Your task to perform on an android device: Open my contact list Image 0: 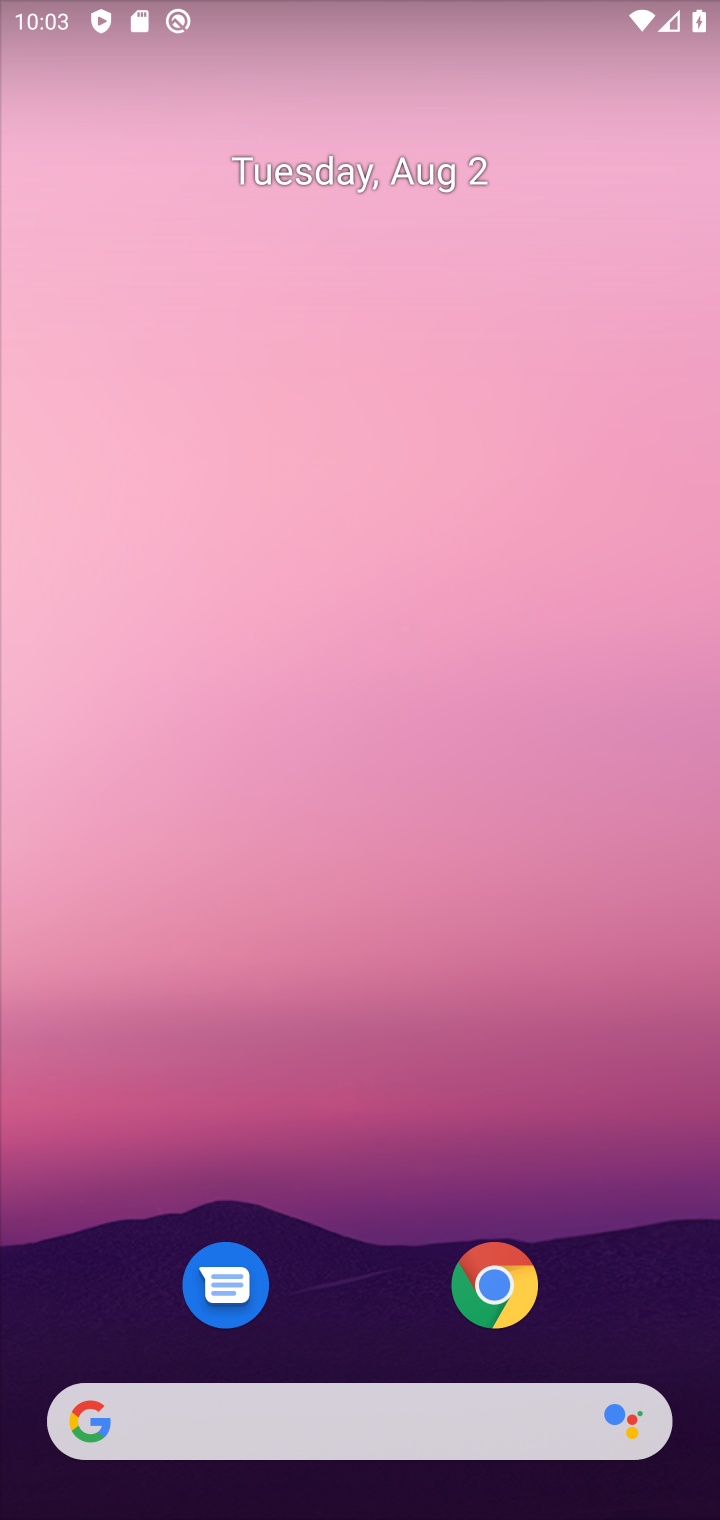
Step 0: drag from (334, 1334) to (396, 863)
Your task to perform on an android device: Open my contact list Image 1: 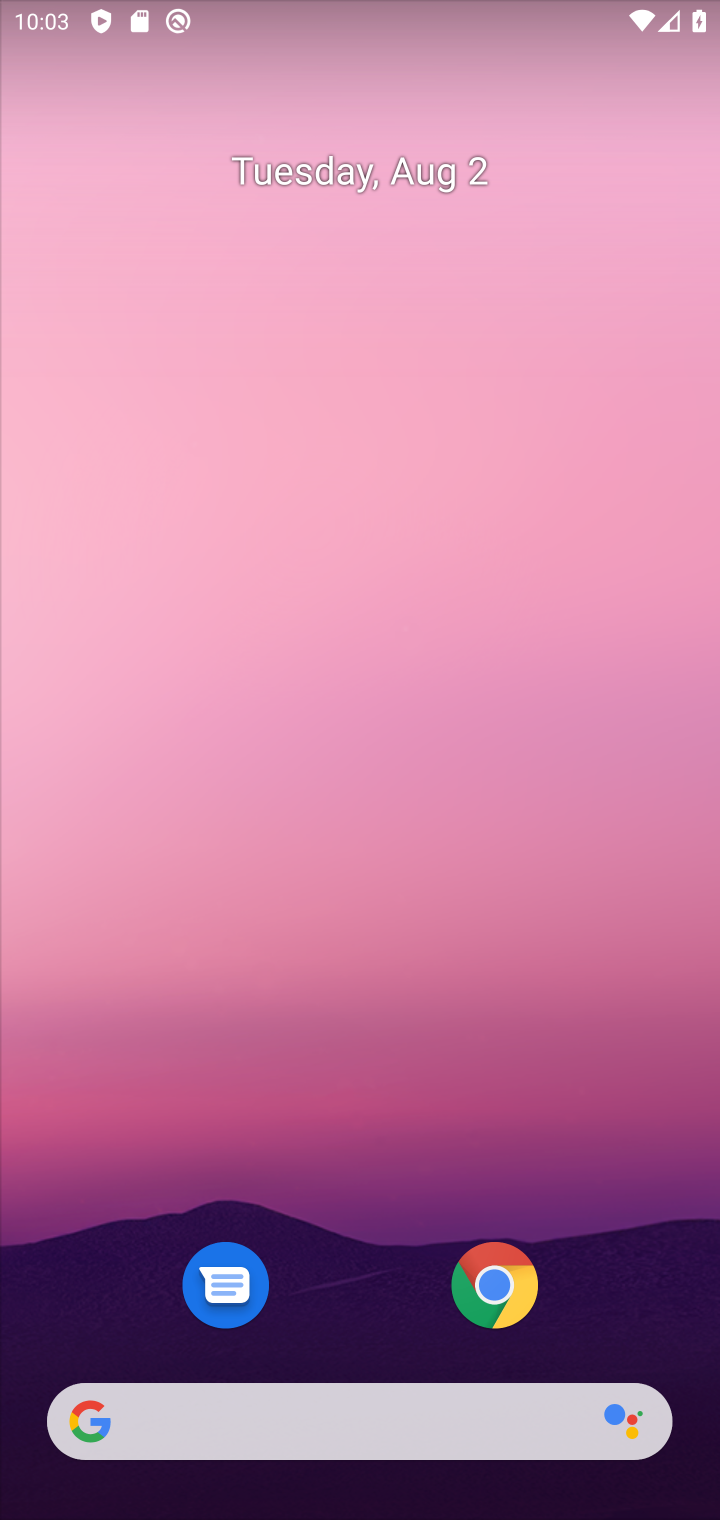
Step 1: drag from (357, 930) to (538, 290)
Your task to perform on an android device: Open my contact list Image 2: 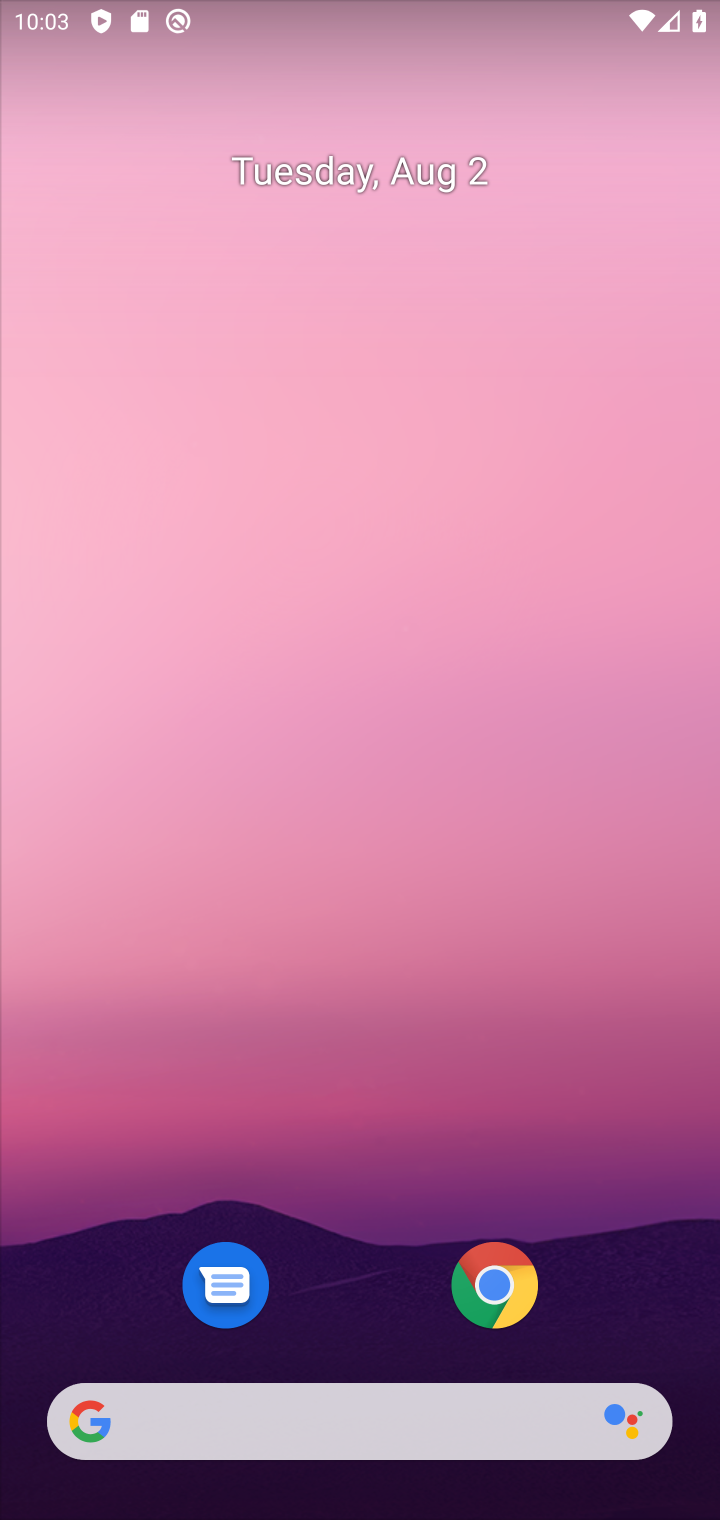
Step 2: drag from (359, 1317) to (605, 168)
Your task to perform on an android device: Open my contact list Image 3: 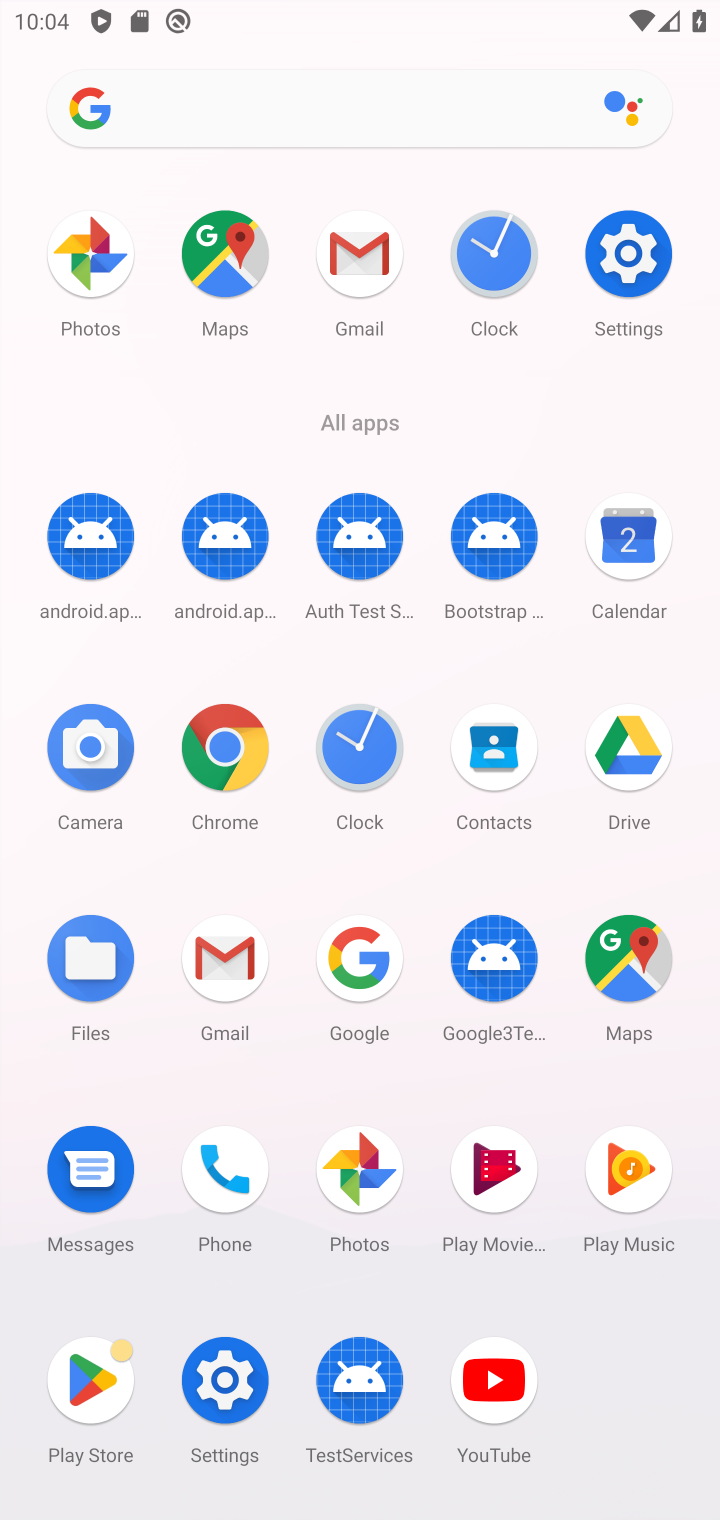
Step 3: click (500, 736)
Your task to perform on an android device: Open my contact list Image 4: 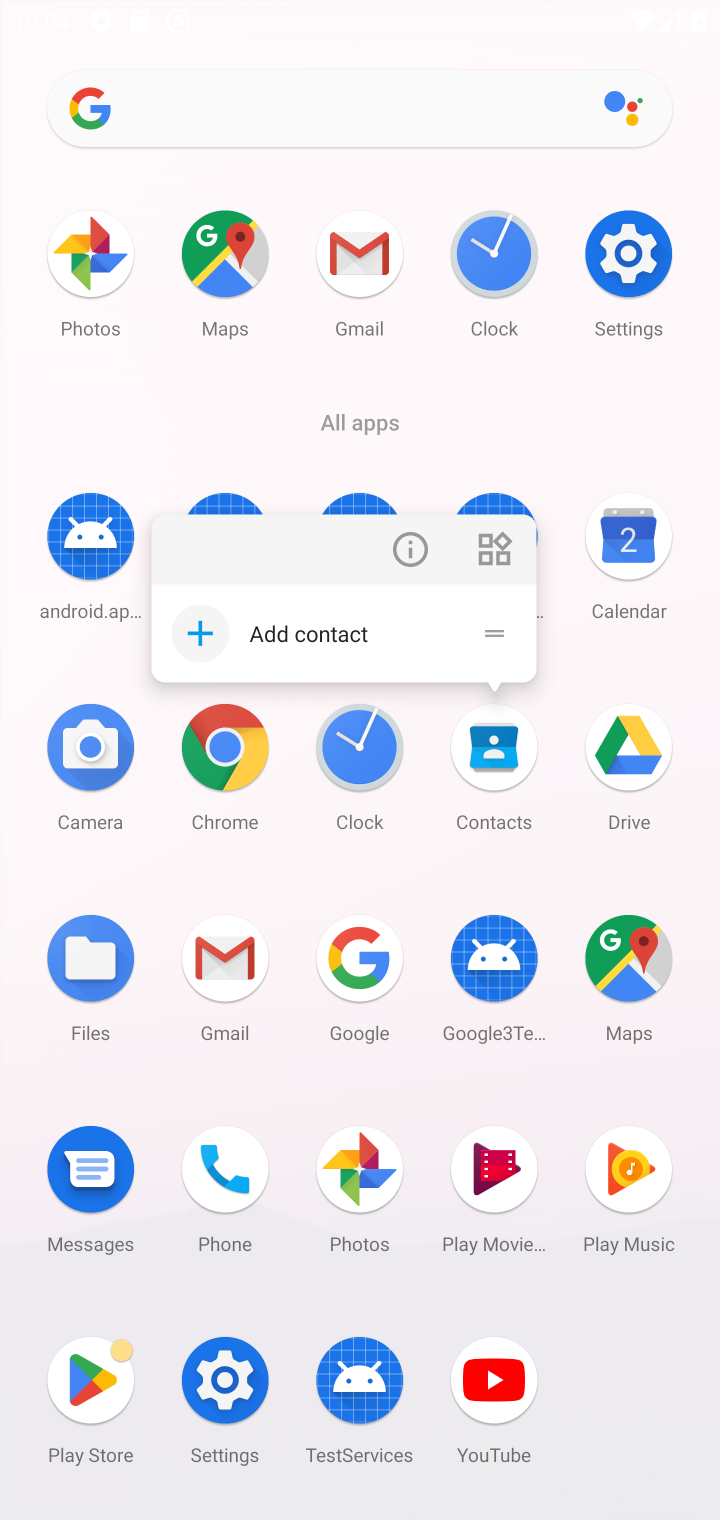
Step 4: click (420, 552)
Your task to perform on an android device: Open my contact list Image 5: 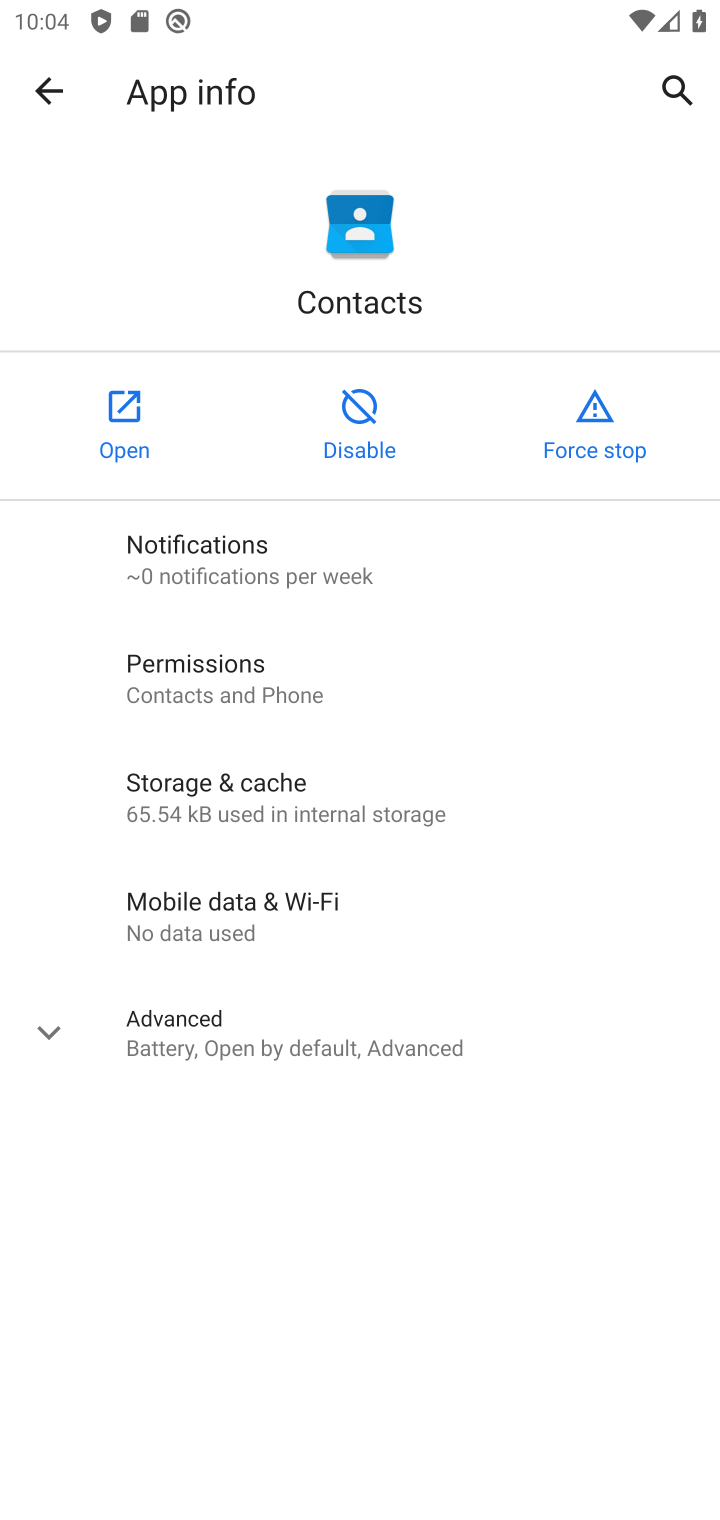
Step 5: click (117, 411)
Your task to perform on an android device: Open my contact list Image 6: 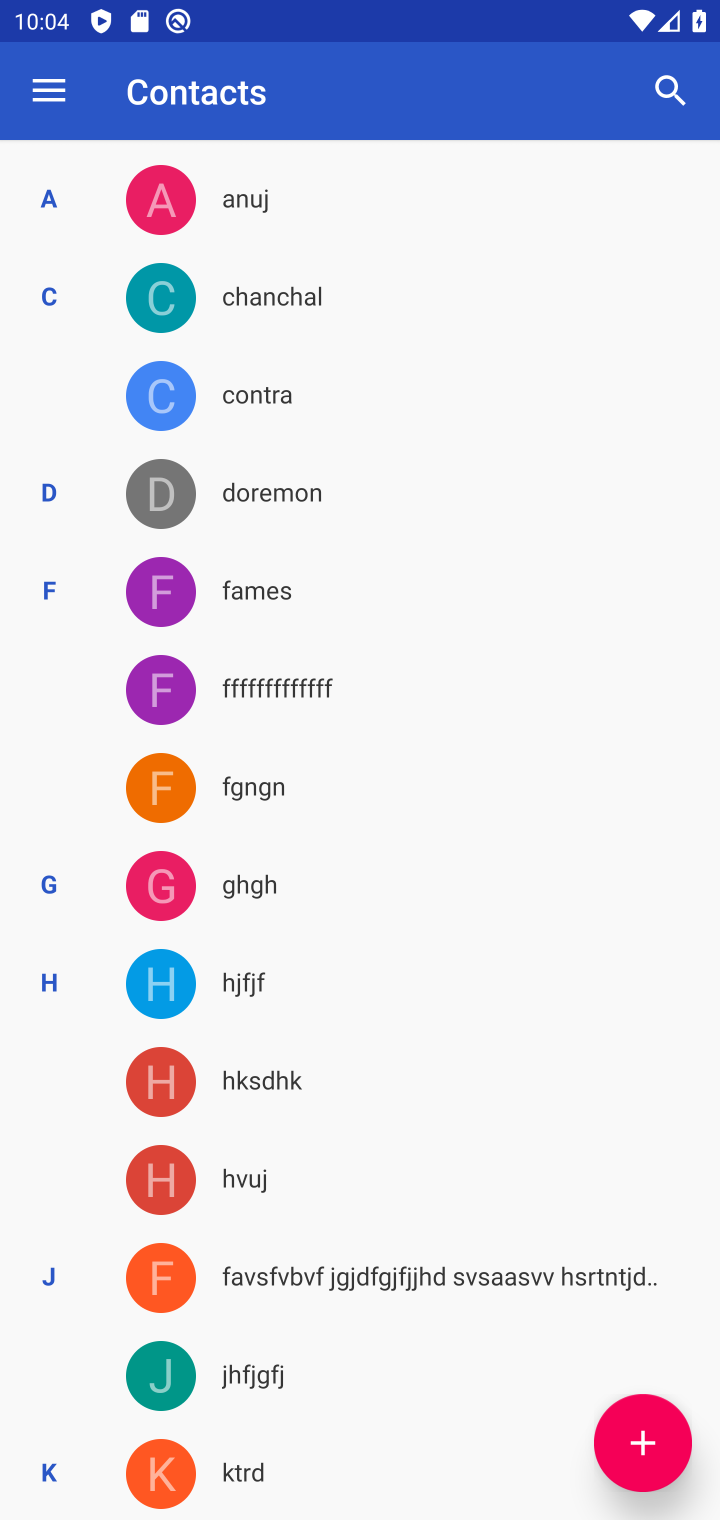
Step 6: task complete